Your task to perform on an android device: Go to settings Image 0: 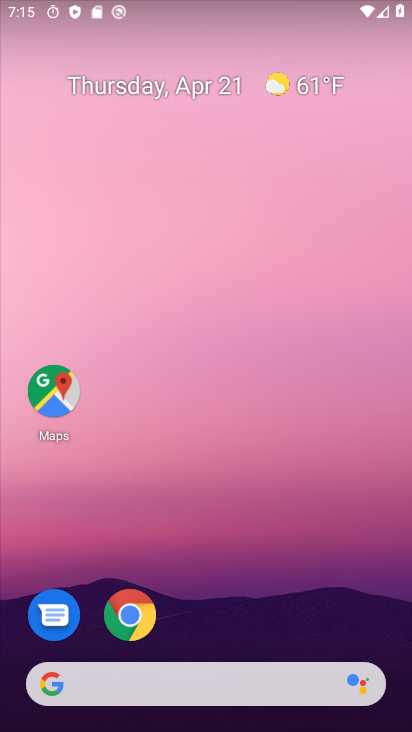
Step 0: click (218, 263)
Your task to perform on an android device: Go to settings Image 1: 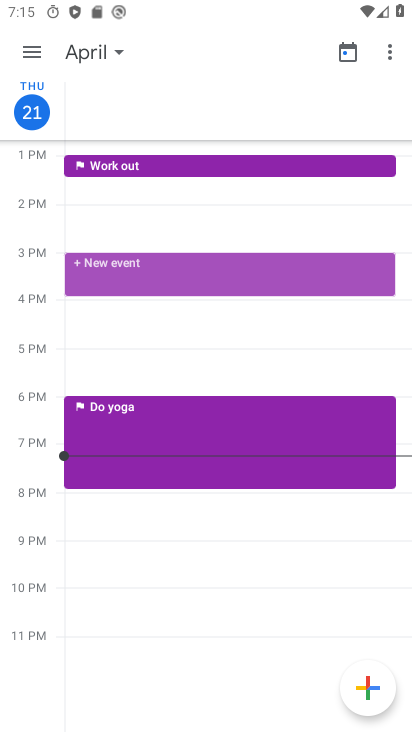
Step 1: press home button
Your task to perform on an android device: Go to settings Image 2: 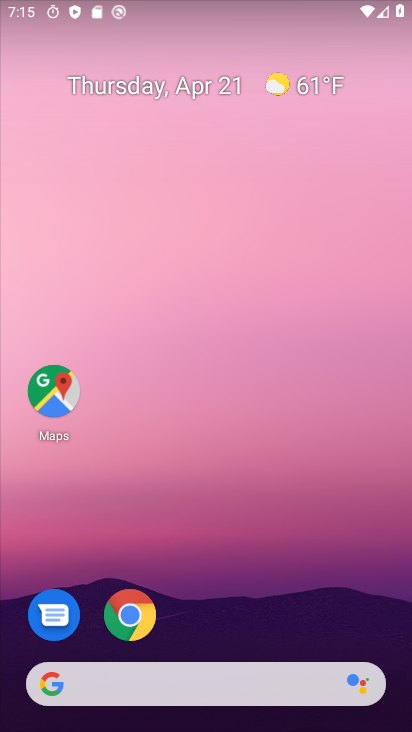
Step 2: drag from (224, 657) to (237, 204)
Your task to perform on an android device: Go to settings Image 3: 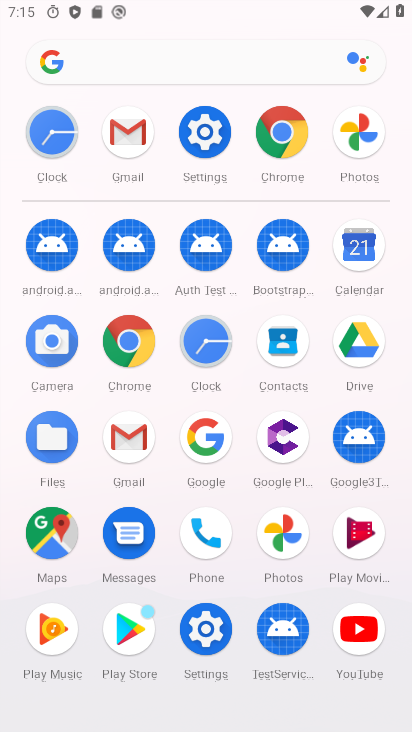
Step 3: click (204, 617)
Your task to perform on an android device: Go to settings Image 4: 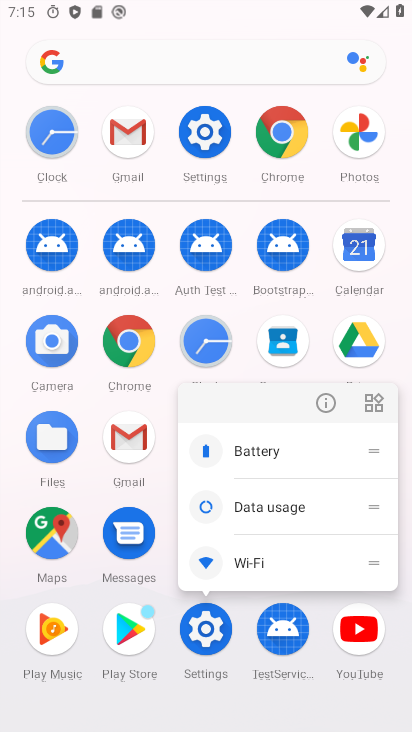
Step 4: click (335, 401)
Your task to perform on an android device: Go to settings Image 5: 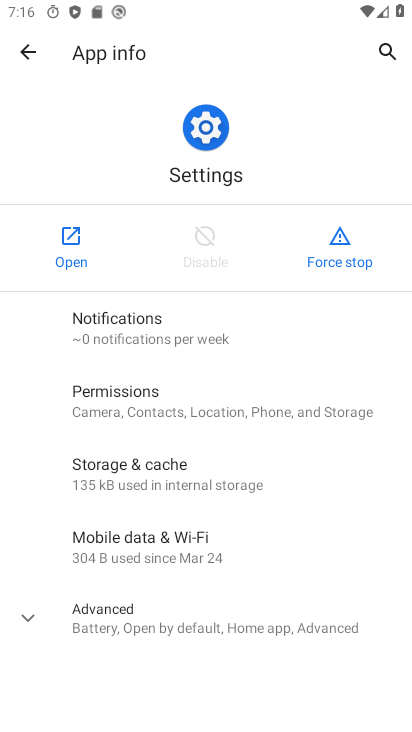
Step 5: click (65, 242)
Your task to perform on an android device: Go to settings Image 6: 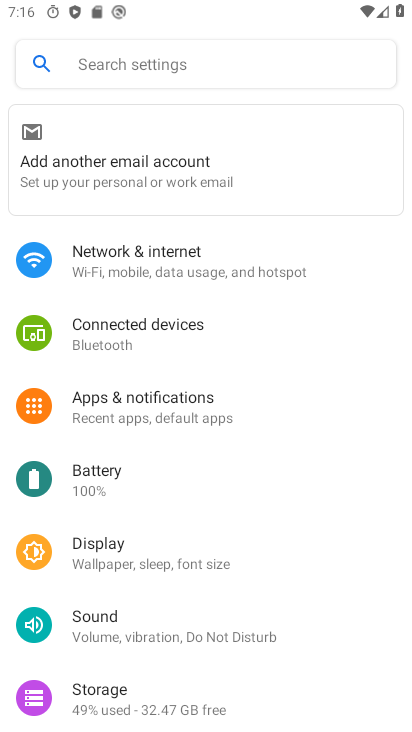
Step 6: task complete